Your task to perform on an android device: clear history in the chrome app Image 0: 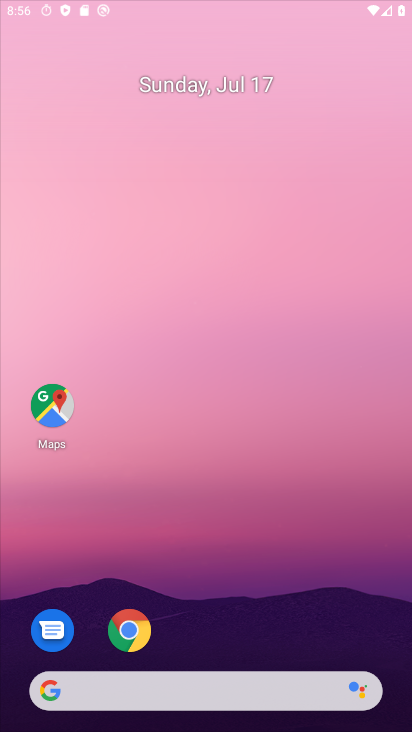
Step 0: click (171, 687)
Your task to perform on an android device: clear history in the chrome app Image 1: 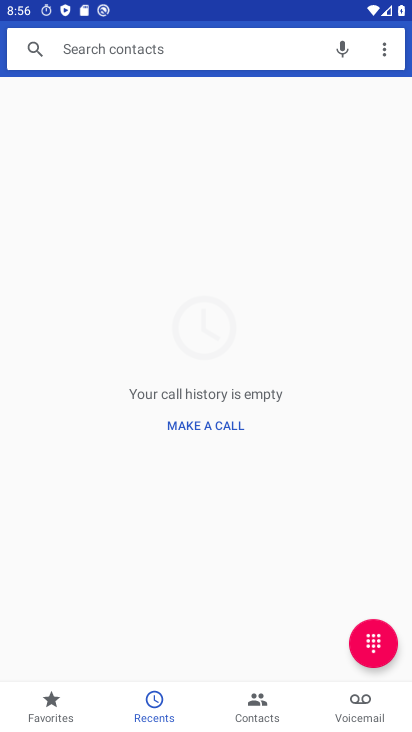
Step 1: press home button
Your task to perform on an android device: clear history in the chrome app Image 2: 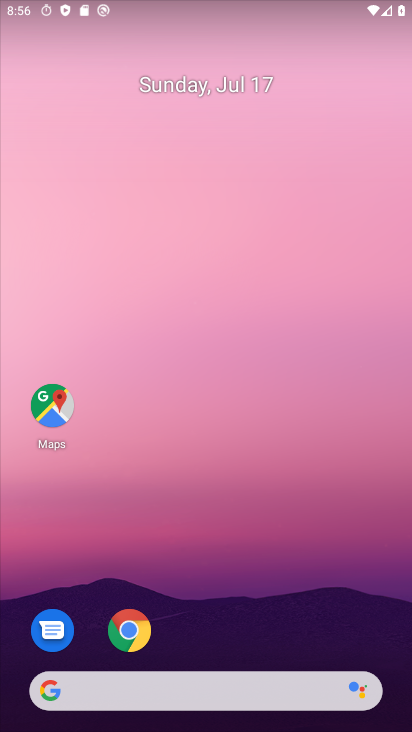
Step 2: click (120, 640)
Your task to perform on an android device: clear history in the chrome app Image 3: 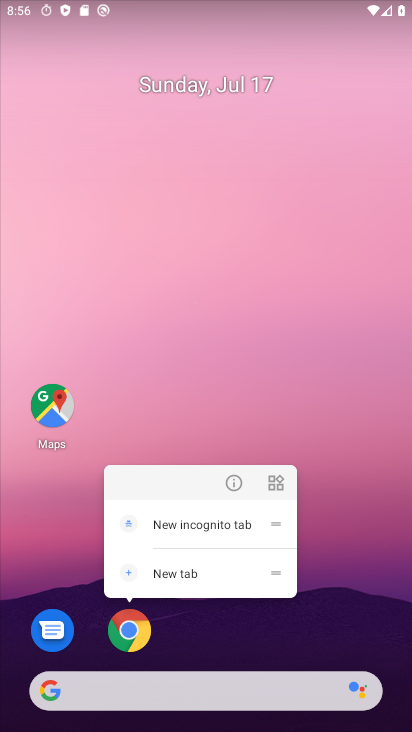
Step 3: click (116, 626)
Your task to perform on an android device: clear history in the chrome app Image 4: 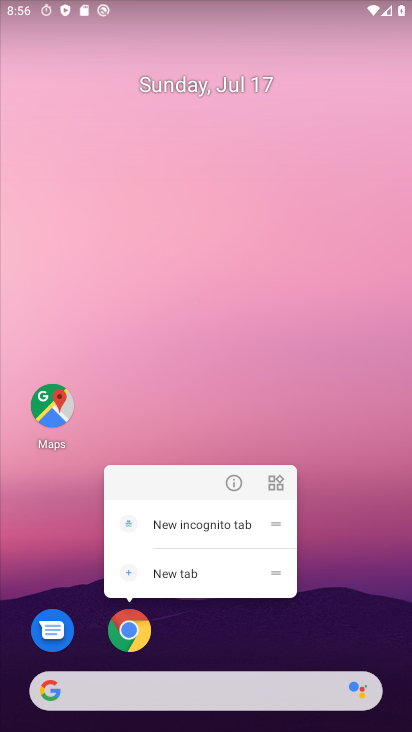
Step 4: click (123, 633)
Your task to perform on an android device: clear history in the chrome app Image 5: 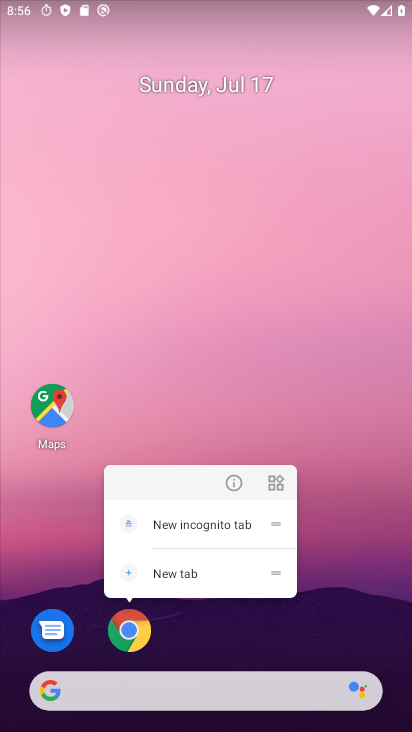
Step 5: click (123, 633)
Your task to perform on an android device: clear history in the chrome app Image 6: 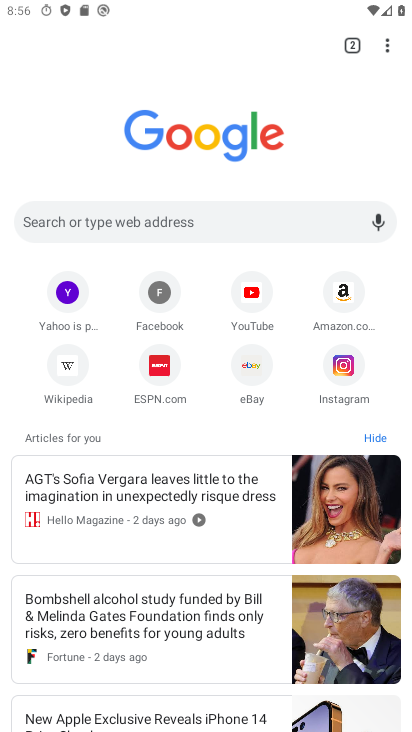
Step 6: click (386, 45)
Your task to perform on an android device: clear history in the chrome app Image 7: 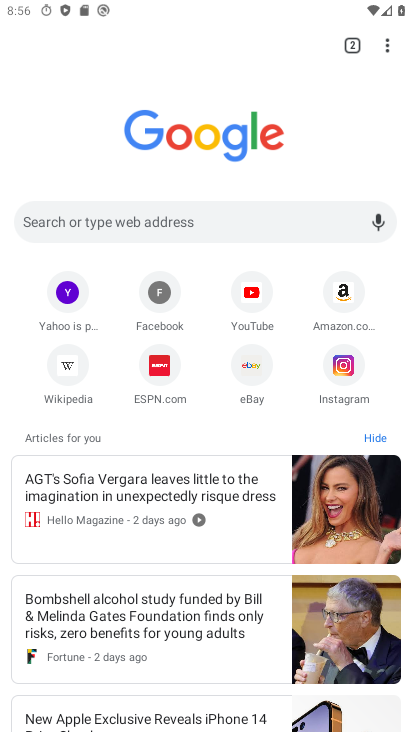
Step 7: click (391, 36)
Your task to perform on an android device: clear history in the chrome app Image 8: 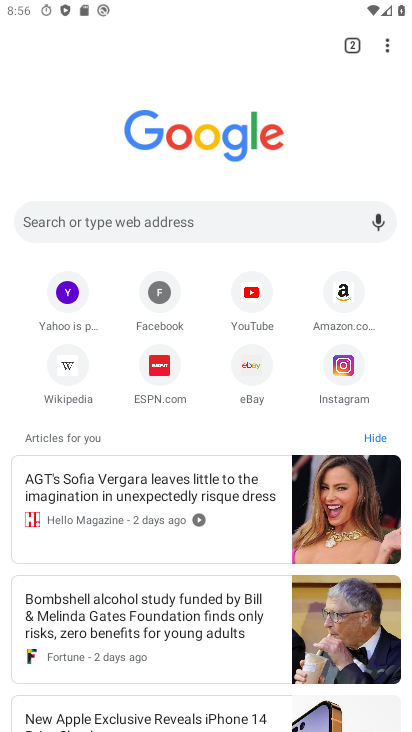
Step 8: click (390, 44)
Your task to perform on an android device: clear history in the chrome app Image 9: 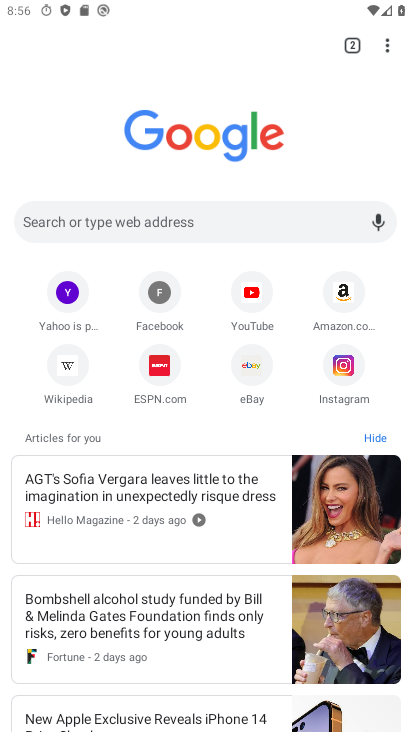
Step 9: click (389, 37)
Your task to perform on an android device: clear history in the chrome app Image 10: 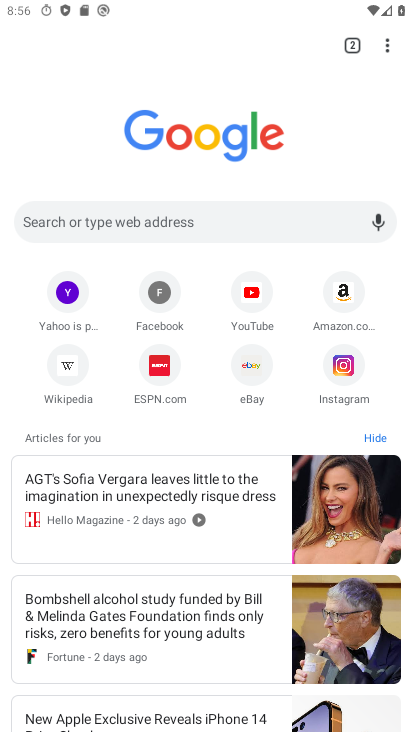
Step 10: task complete